Your task to perform on an android device: see creations saved in the google photos Image 0: 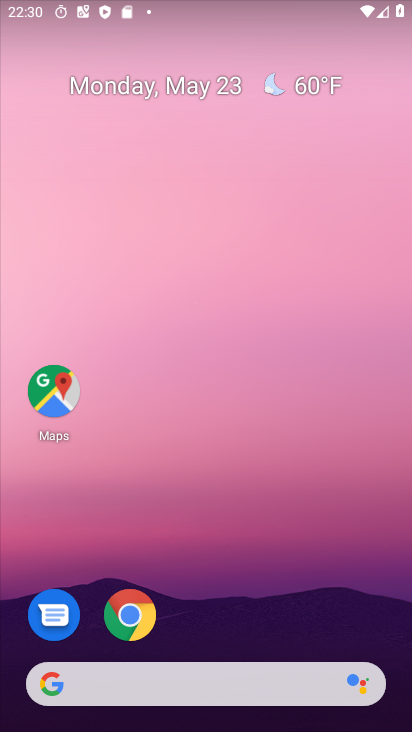
Step 0: drag from (232, 267) to (217, 119)
Your task to perform on an android device: see creations saved in the google photos Image 1: 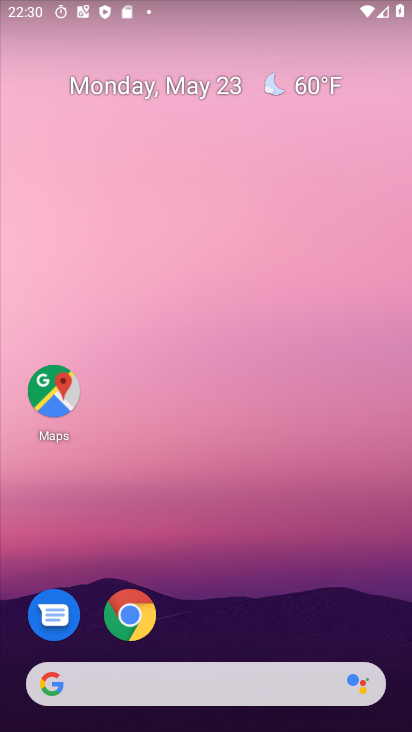
Step 1: drag from (210, 595) to (232, 92)
Your task to perform on an android device: see creations saved in the google photos Image 2: 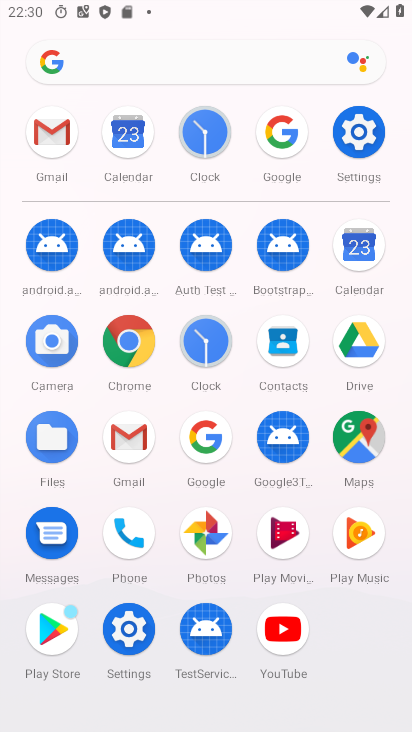
Step 2: click (211, 518)
Your task to perform on an android device: see creations saved in the google photos Image 3: 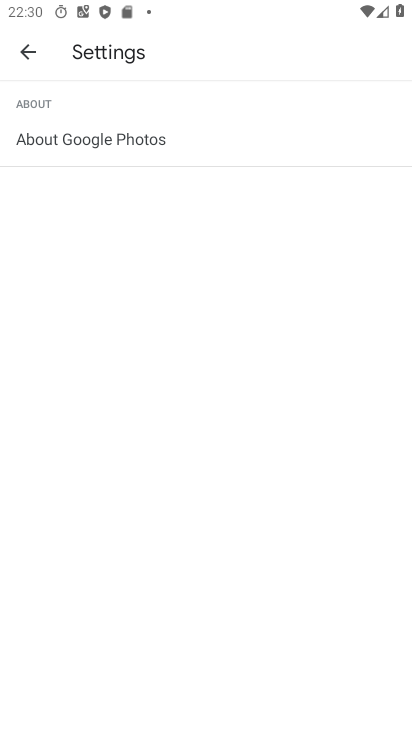
Step 3: press back button
Your task to perform on an android device: see creations saved in the google photos Image 4: 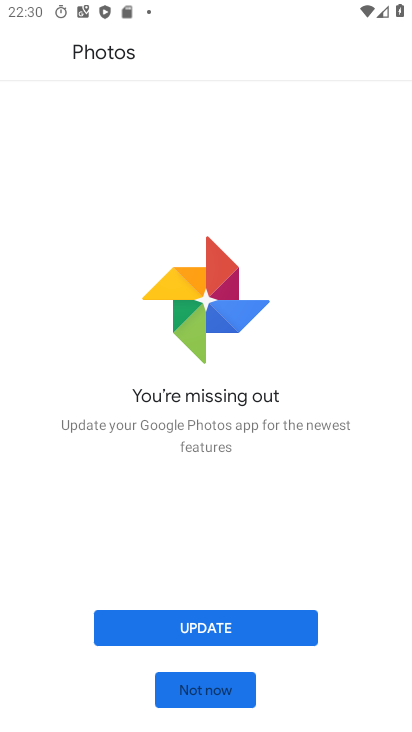
Step 4: click (207, 636)
Your task to perform on an android device: see creations saved in the google photos Image 5: 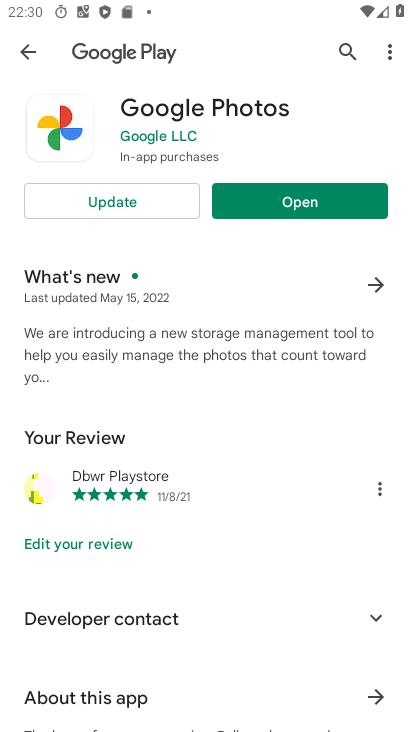
Step 5: click (136, 203)
Your task to perform on an android device: see creations saved in the google photos Image 6: 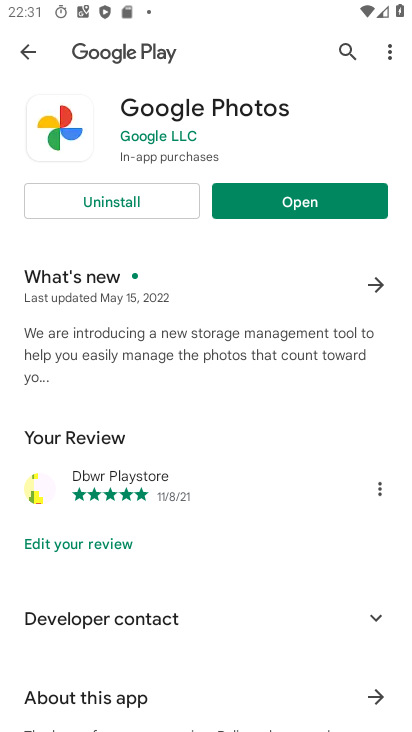
Step 6: click (253, 193)
Your task to perform on an android device: see creations saved in the google photos Image 7: 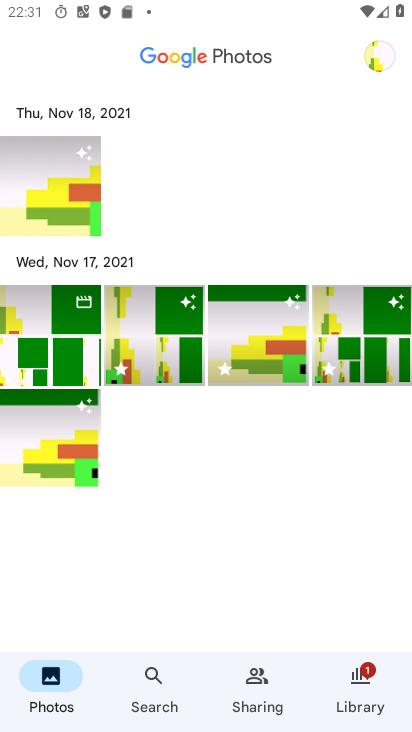
Step 7: click (153, 687)
Your task to perform on an android device: see creations saved in the google photos Image 8: 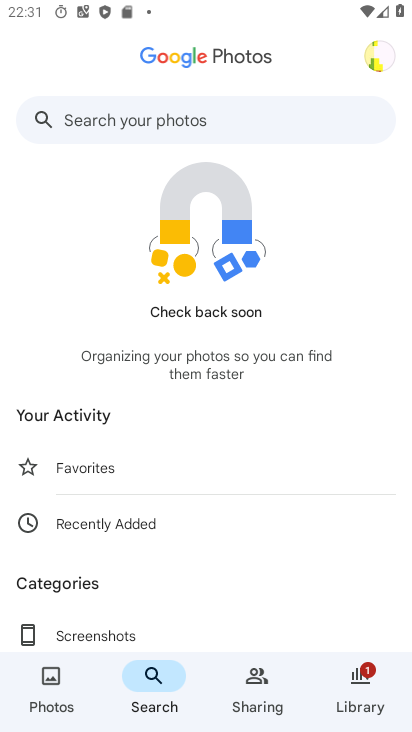
Step 8: drag from (160, 594) to (164, 263)
Your task to perform on an android device: see creations saved in the google photos Image 9: 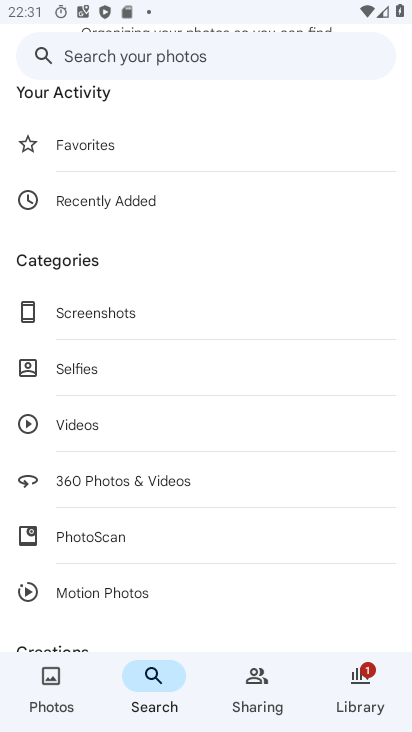
Step 9: drag from (162, 593) to (149, 392)
Your task to perform on an android device: see creations saved in the google photos Image 10: 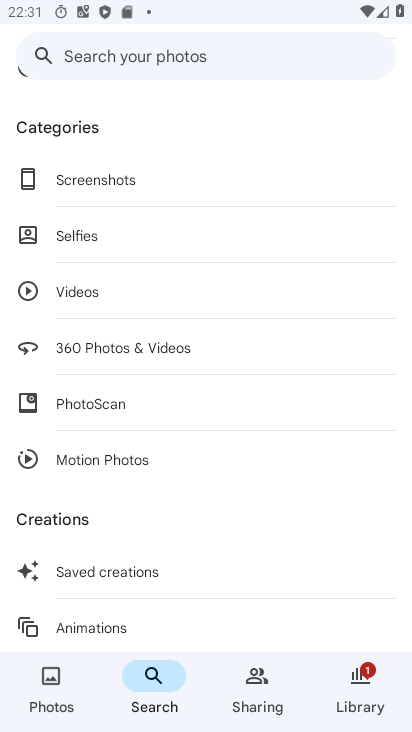
Step 10: click (93, 577)
Your task to perform on an android device: see creations saved in the google photos Image 11: 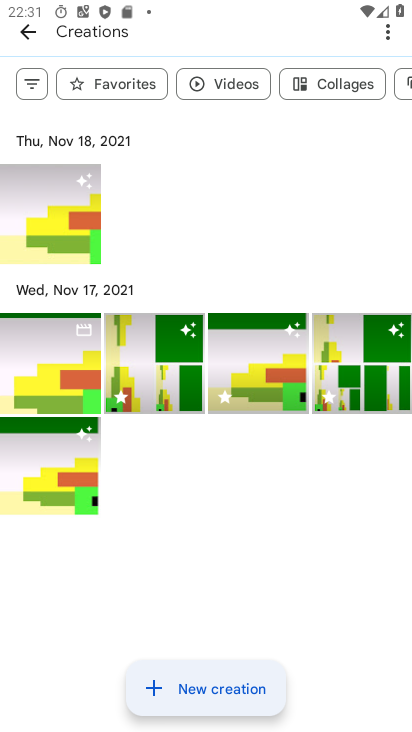
Step 11: task complete